Your task to perform on an android device: clear history in the chrome app Image 0: 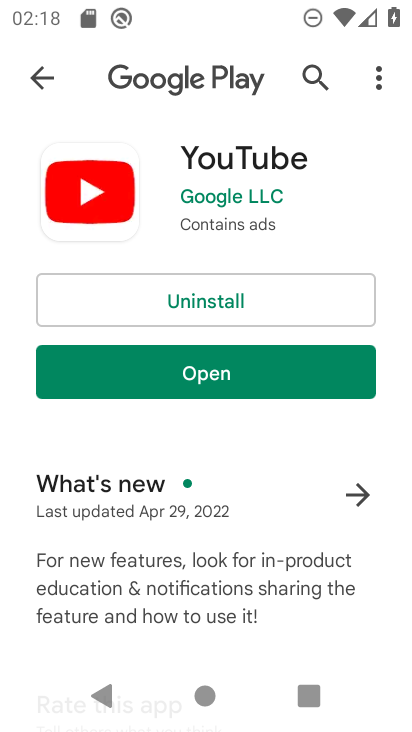
Step 0: press home button
Your task to perform on an android device: clear history in the chrome app Image 1: 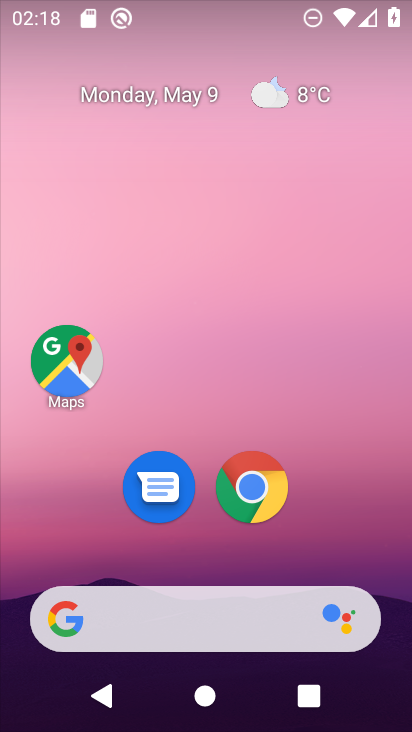
Step 1: click (249, 489)
Your task to perform on an android device: clear history in the chrome app Image 2: 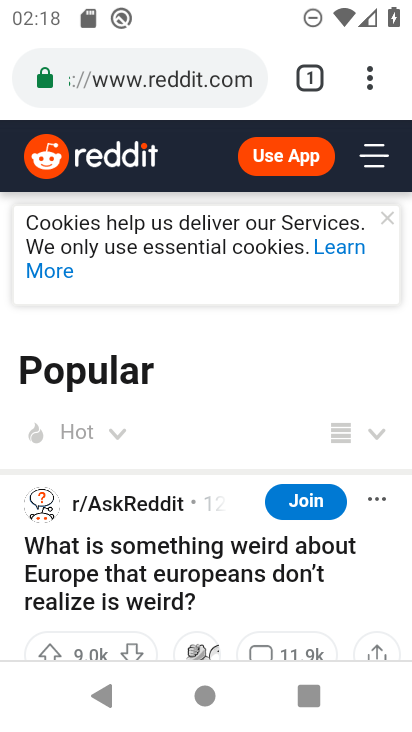
Step 2: click (367, 82)
Your task to perform on an android device: clear history in the chrome app Image 3: 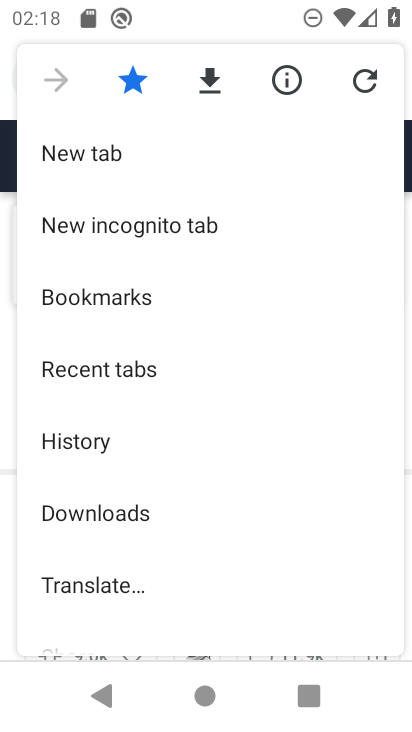
Step 3: click (93, 452)
Your task to perform on an android device: clear history in the chrome app Image 4: 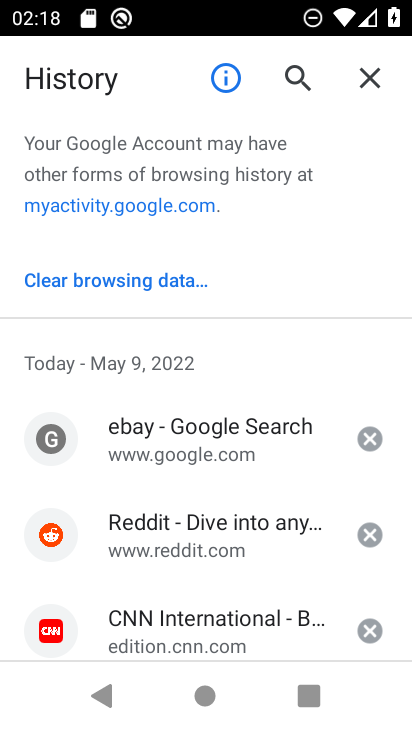
Step 4: click (126, 290)
Your task to perform on an android device: clear history in the chrome app Image 5: 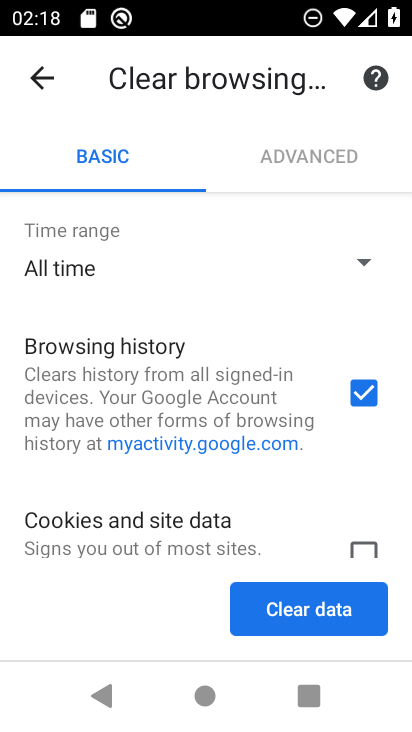
Step 5: click (306, 612)
Your task to perform on an android device: clear history in the chrome app Image 6: 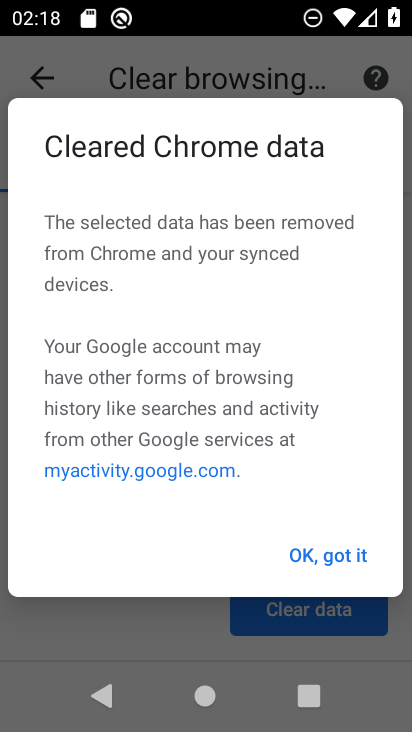
Step 6: click (338, 557)
Your task to perform on an android device: clear history in the chrome app Image 7: 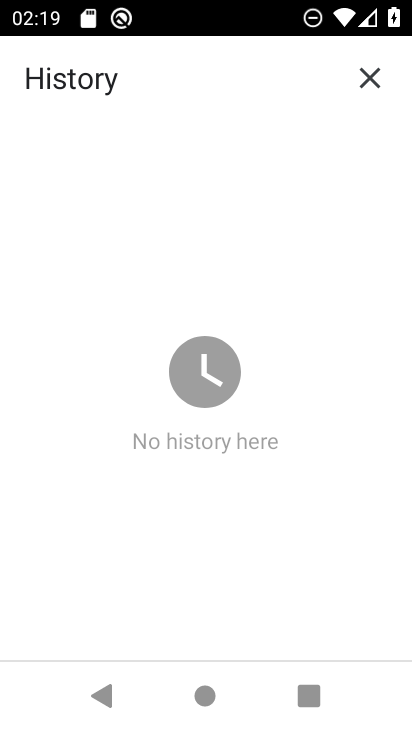
Step 7: task complete